Your task to perform on an android device: Open calendar and show me the fourth week of next month Image 0: 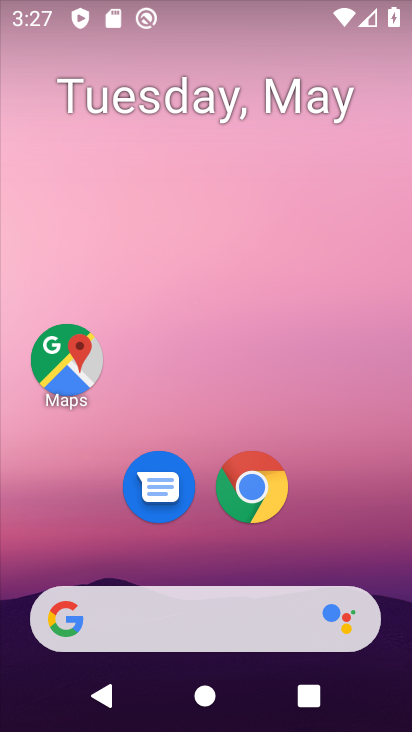
Step 0: drag from (200, 553) to (205, 110)
Your task to perform on an android device: Open calendar and show me the fourth week of next month Image 1: 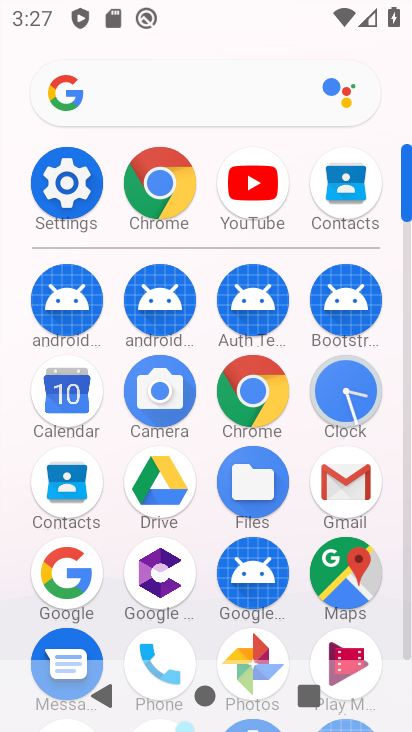
Step 1: click (66, 391)
Your task to perform on an android device: Open calendar and show me the fourth week of next month Image 2: 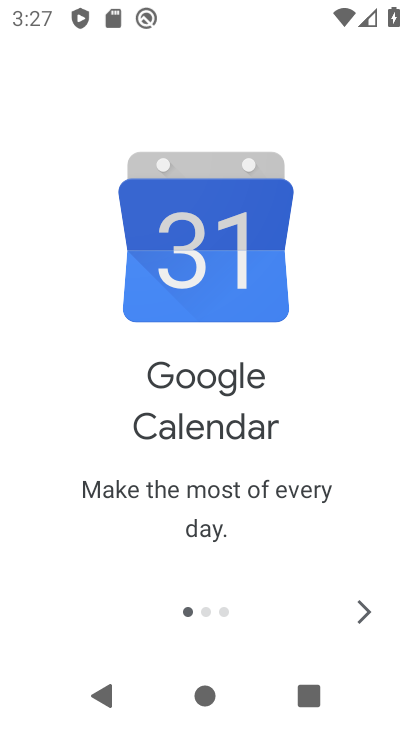
Step 2: click (353, 603)
Your task to perform on an android device: Open calendar and show me the fourth week of next month Image 3: 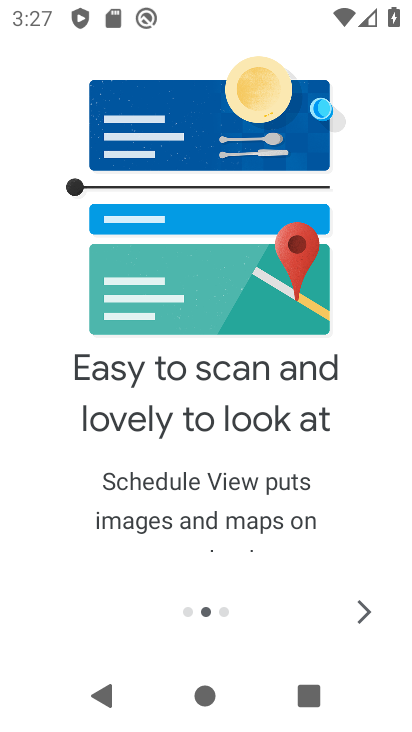
Step 3: click (353, 602)
Your task to perform on an android device: Open calendar and show me the fourth week of next month Image 4: 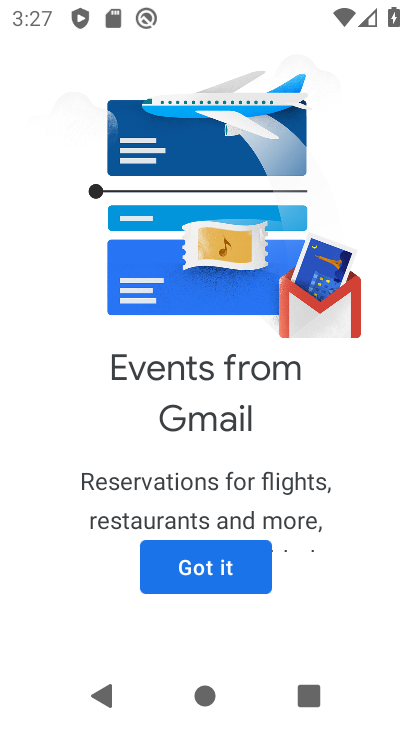
Step 4: click (209, 565)
Your task to perform on an android device: Open calendar and show me the fourth week of next month Image 5: 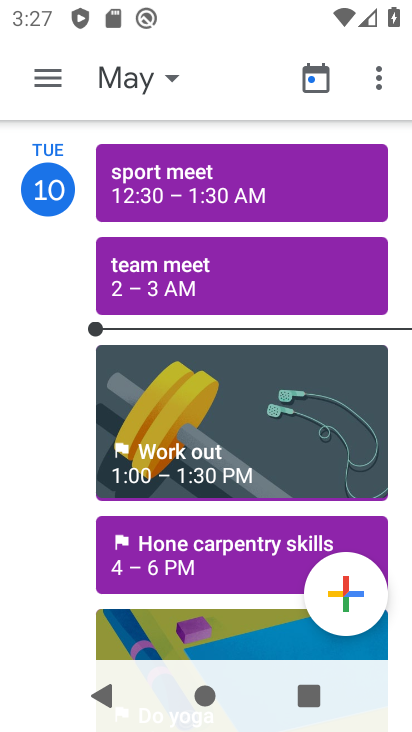
Step 5: click (51, 72)
Your task to perform on an android device: Open calendar and show me the fourth week of next month Image 6: 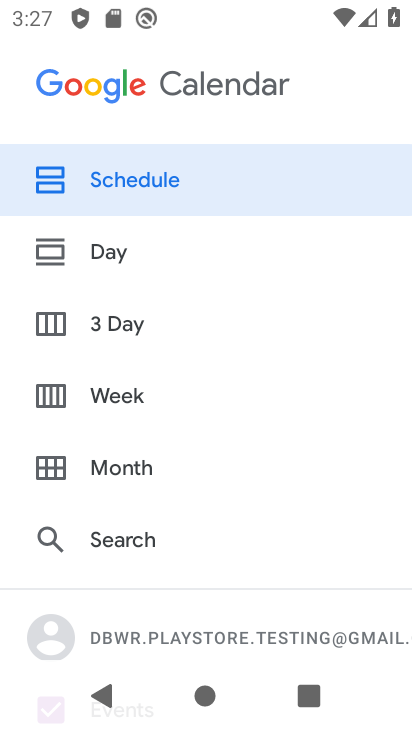
Step 6: click (78, 387)
Your task to perform on an android device: Open calendar and show me the fourth week of next month Image 7: 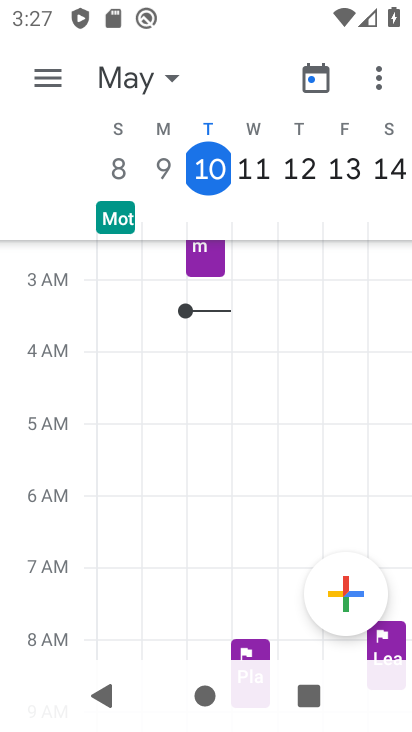
Step 7: drag from (394, 165) to (50, 162)
Your task to perform on an android device: Open calendar and show me the fourth week of next month Image 8: 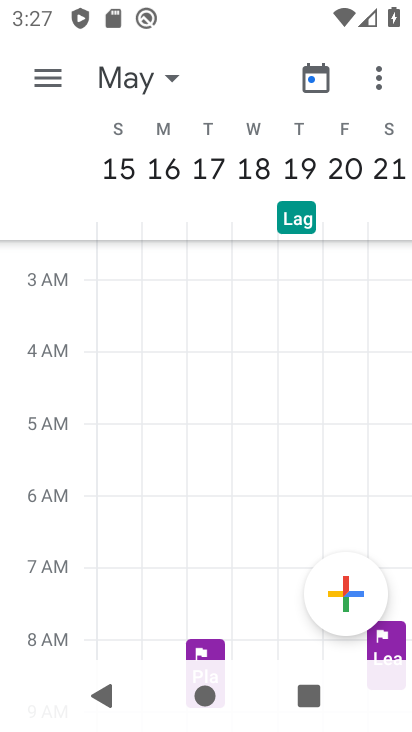
Step 8: drag from (393, 169) to (94, 164)
Your task to perform on an android device: Open calendar and show me the fourth week of next month Image 9: 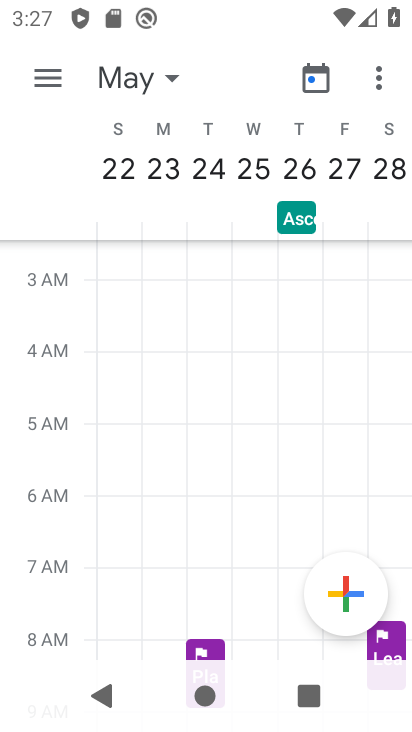
Step 9: drag from (389, 161) to (82, 157)
Your task to perform on an android device: Open calendar and show me the fourth week of next month Image 10: 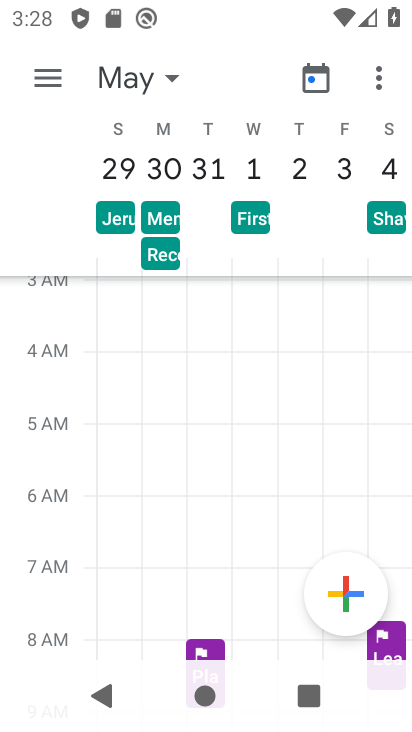
Step 10: drag from (385, 166) to (96, 163)
Your task to perform on an android device: Open calendar and show me the fourth week of next month Image 11: 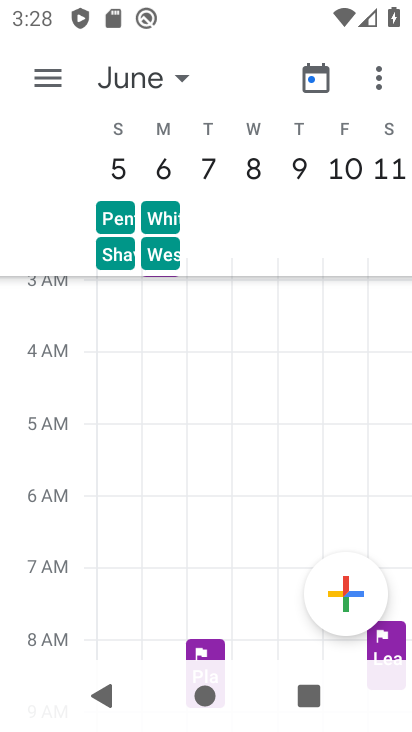
Step 11: drag from (386, 172) to (110, 164)
Your task to perform on an android device: Open calendar and show me the fourth week of next month Image 12: 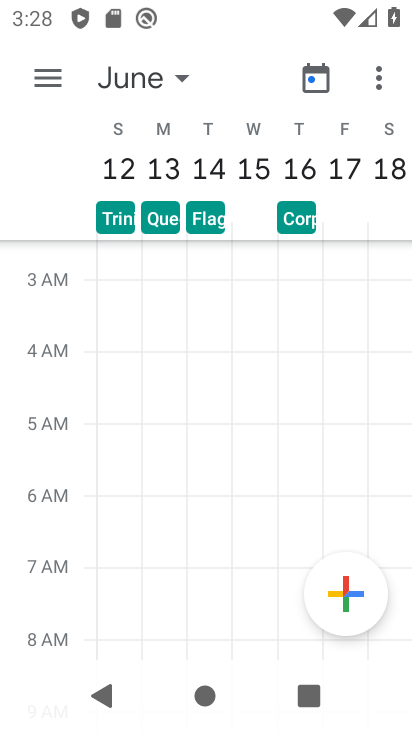
Step 12: drag from (388, 163) to (44, 162)
Your task to perform on an android device: Open calendar and show me the fourth week of next month Image 13: 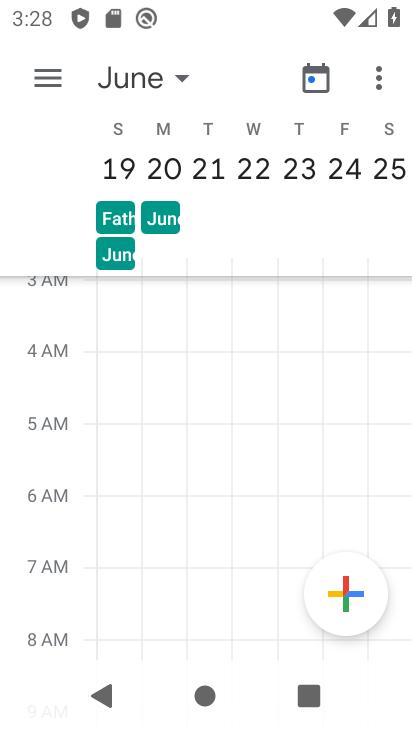
Step 13: click (115, 161)
Your task to perform on an android device: Open calendar and show me the fourth week of next month Image 14: 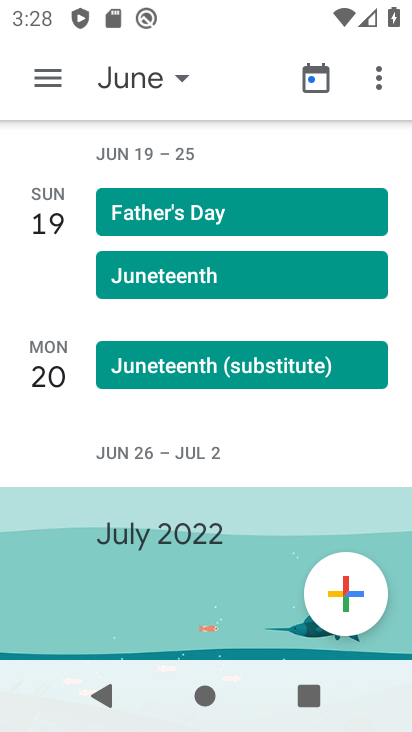
Step 14: task complete